Your task to perform on an android device: turn on airplane mode Image 0: 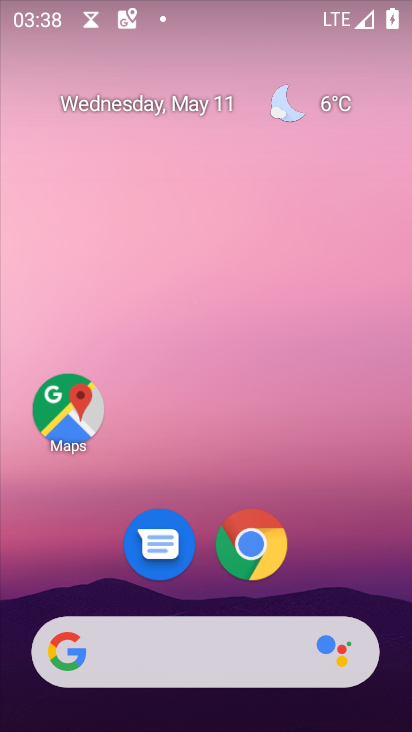
Step 0: drag from (310, 572) to (264, 98)
Your task to perform on an android device: turn on airplane mode Image 1: 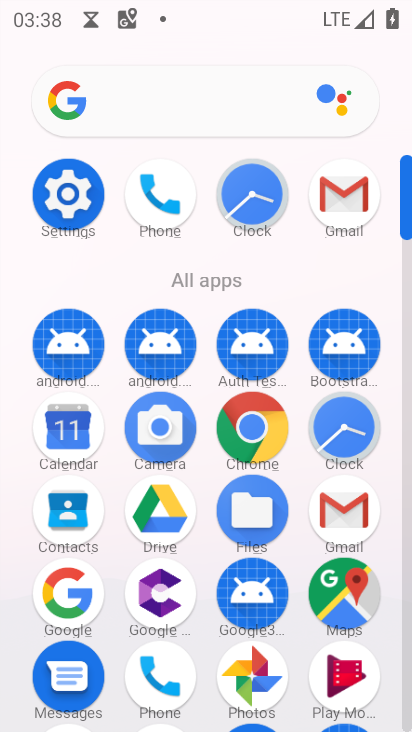
Step 1: click (67, 204)
Your task to perform on an android device: turn on airplane mode Image 2: 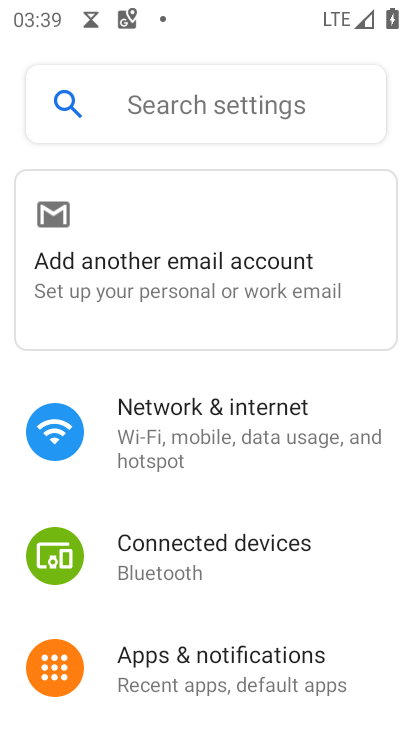
Step 2: click (184, 436)
Your task to perform on an android device: turn on airplane mode Image 3: 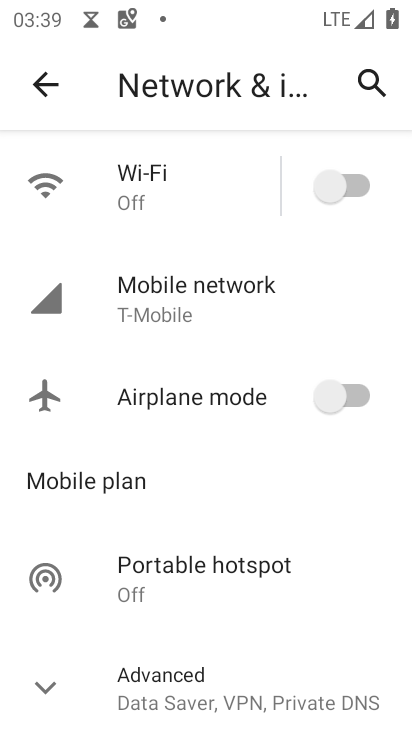
Step 3: click (332, 402)
Your task to perform on an android device: turn on airplane mode Image 4: 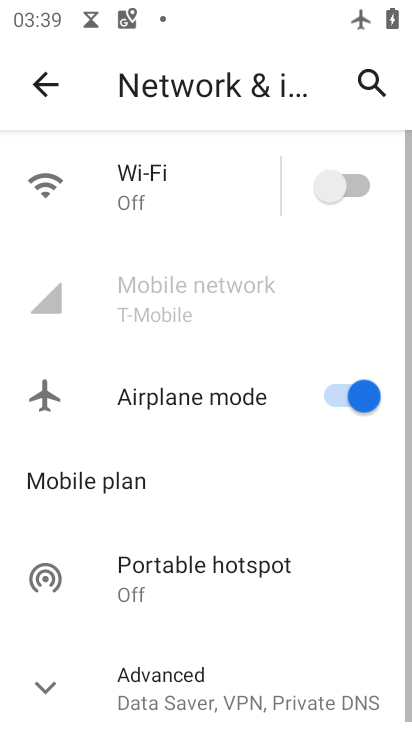
Step 4: task complete